Your task to perform on an android device: Open Reddit.com Image 0: 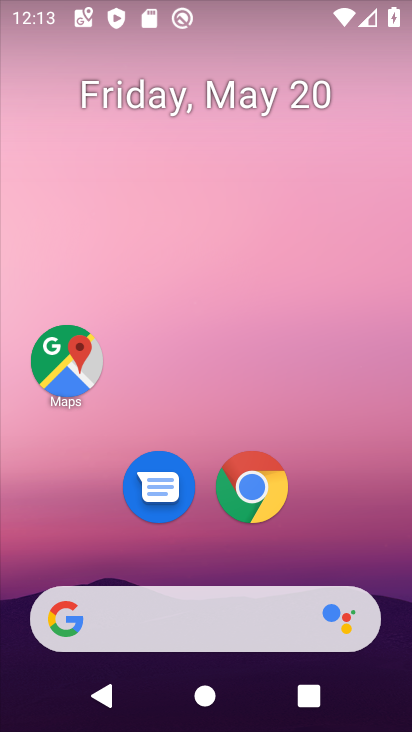
Step 0: click (254, 489)
Your task to perform on an android device: Open Reddit.com Image 1: 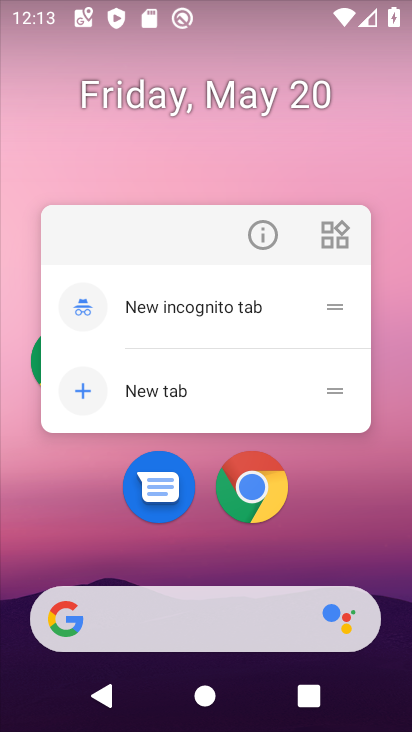
Step 1: click (248, 482)
Your task to perform on an android device: Open Reddit.com Image 2: 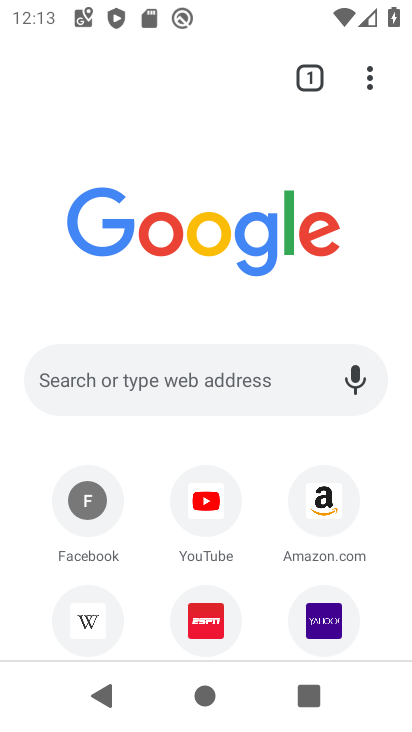
Step 2: click (146, 372)
Your task to perform on an android device: Open Reddit.com Image 3: 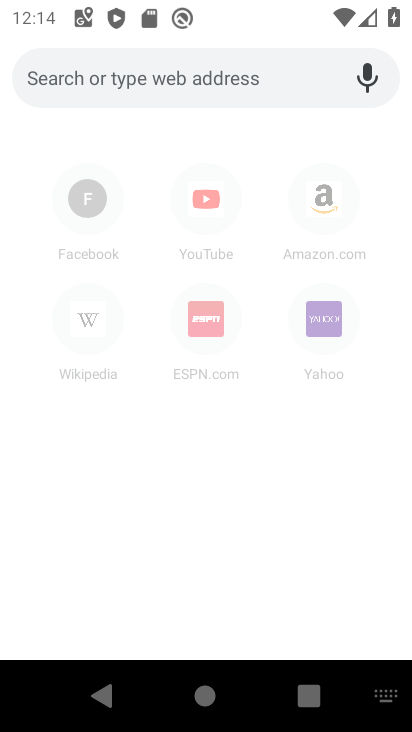
Step 3: press back button
Your task to perform on an android device: Open Reddit.com Image 4: 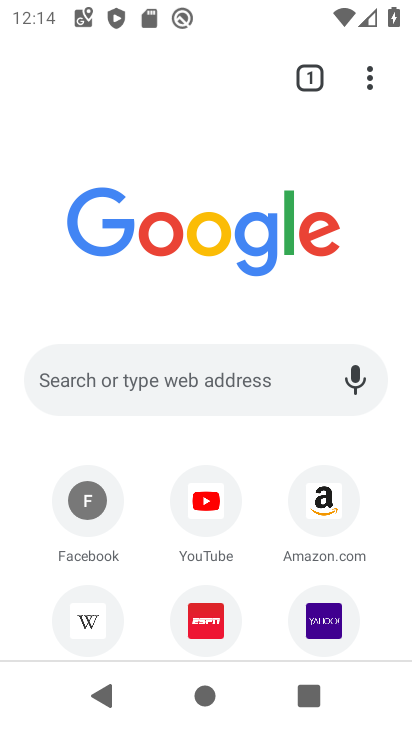
Step 4: press back button
Your task to perform on an android device: Open Reddit.com Image 5: 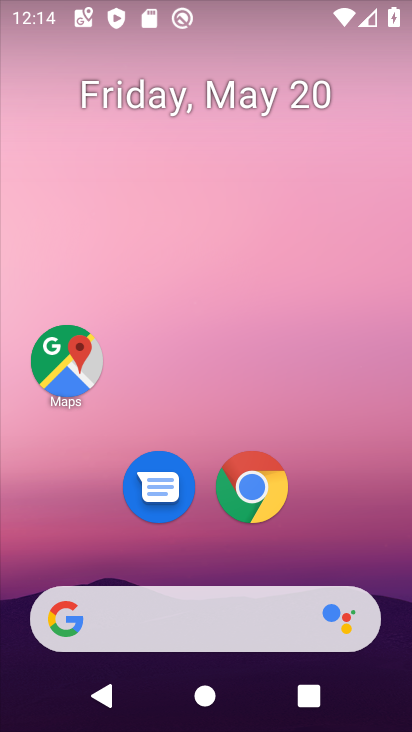
Step 5: click (261, 486)
Your task to perform on an android device: Open Reddit.com Image 6: 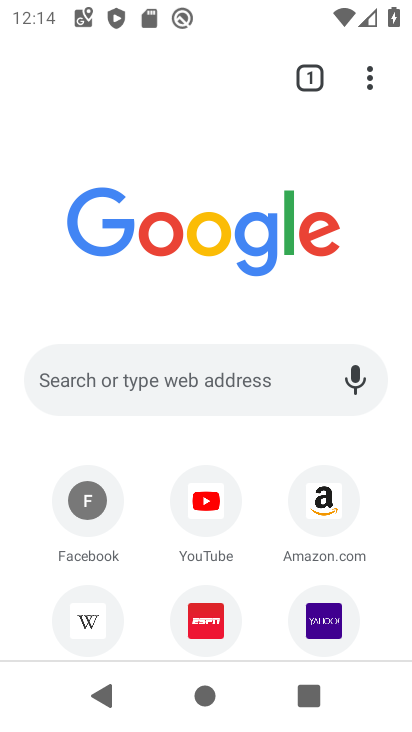
Step 6: click (164, 378)
Your task to perform on an android device: Open Reddit.com Image 7: 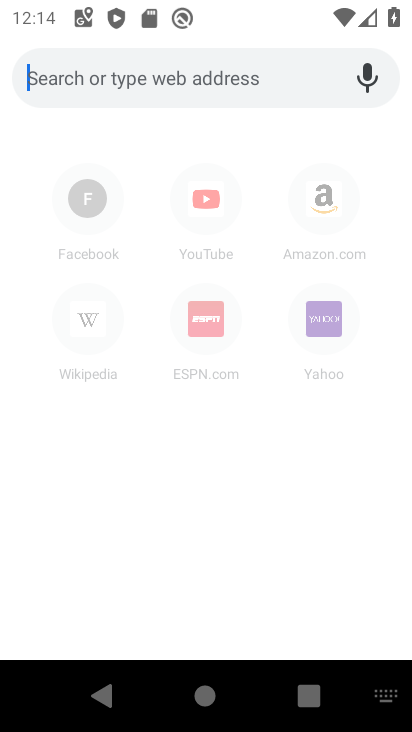
Step 7: type "reddit.com"
Your task to perform on an android device: Open Reddit.com Image 8: 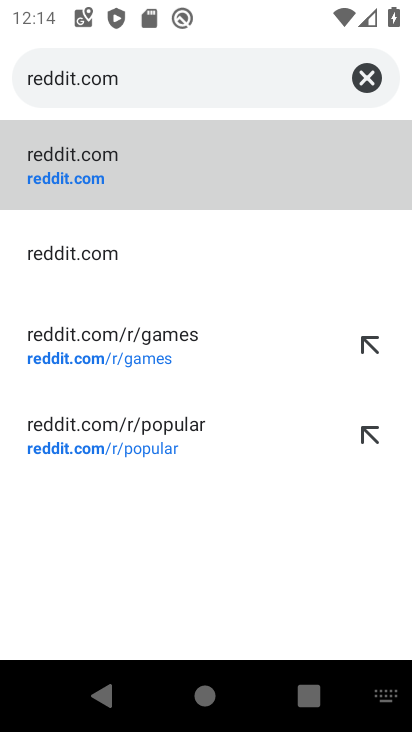
Step 8: click (95, 182)
Your task to perform on an android device: Open Reddit.com Image 9: 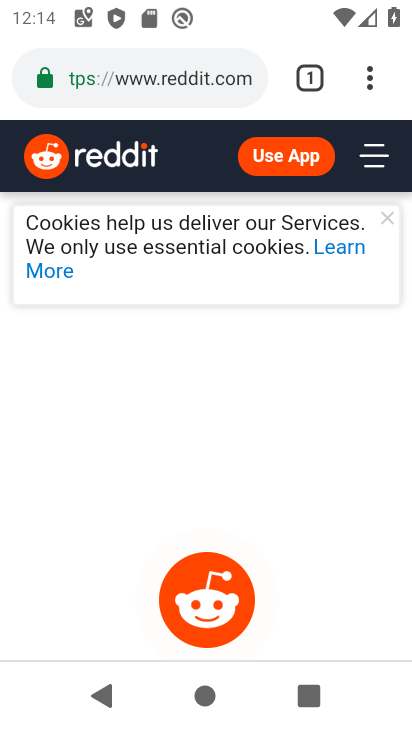
Step 9: task complete